Your task to perform on an android device: Go to privacy settings Image 0: 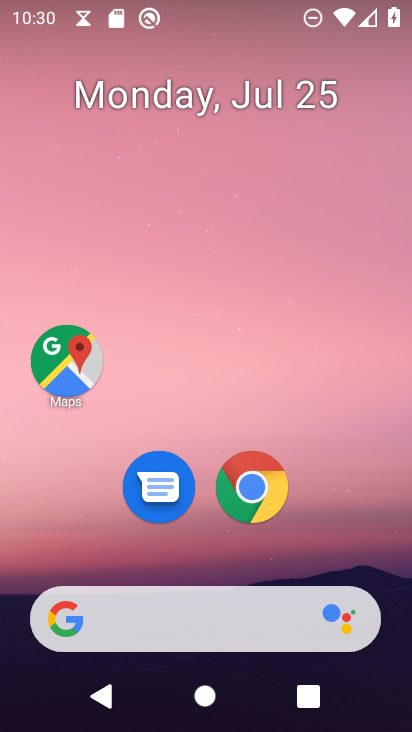
Step 0: drag from (153, 563) to (292, 5)
Your task to perform on an android device: Go to privacy settings Image 1: 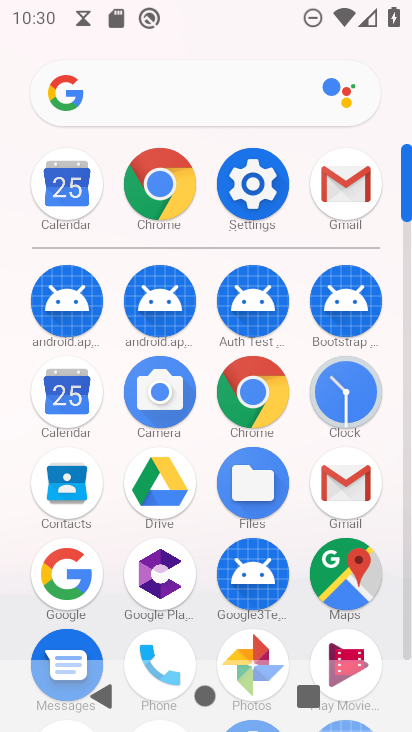
Step 1: click (255, 179)
Your task to perform on an android device: Go to privacy settings Image 2: 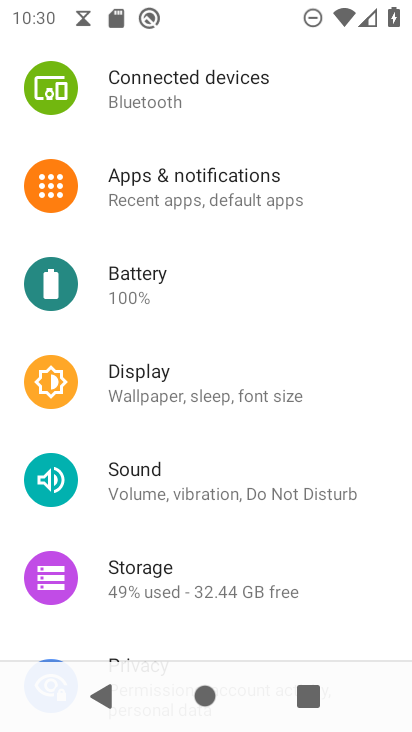
Step 2: drag from (145, 593) to (251, 298)
Your task to perform on an android device: Go to privacy settings Image 3: 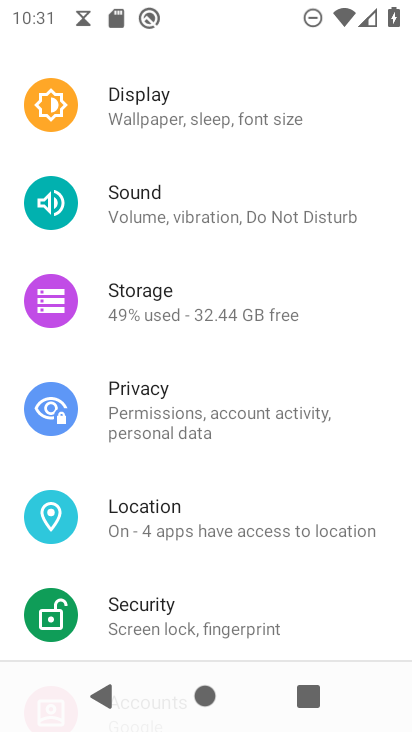
Step 3: click (154, 417)
Your task to perform on an android device: Go to privacy settings Image 4: 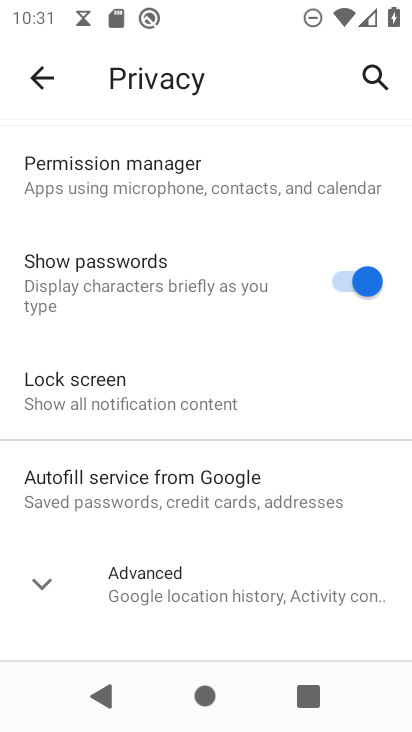
Step 4: task complete